Your task to perform on an android device: empty trash in google photos Image 0: 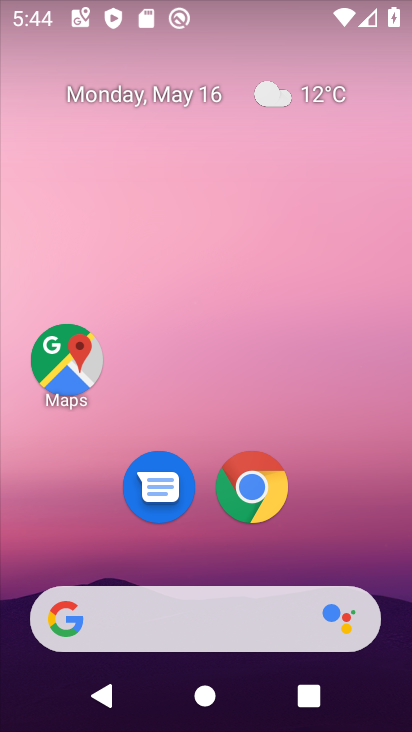
Step 0: drag from (357, 461) to (333, 98)
Your task to perform on an android device: empty trash in google photos Image 1: 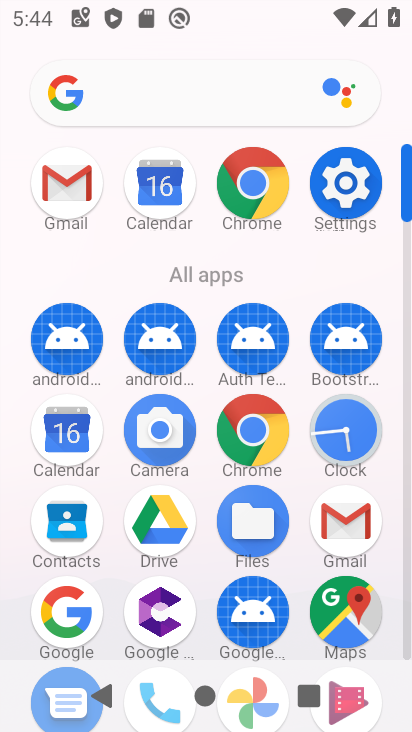
Step 1: drag from (210, 630) to (319, 250)
Your task to perform on an android device: empty trash in google photos Image 2: 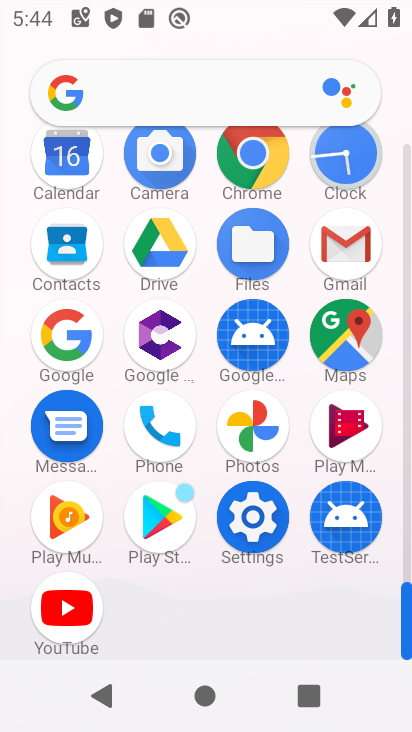
Step 2: click (265, 418)
Your task to perform on an android device: empty trash in google photos Image 3: 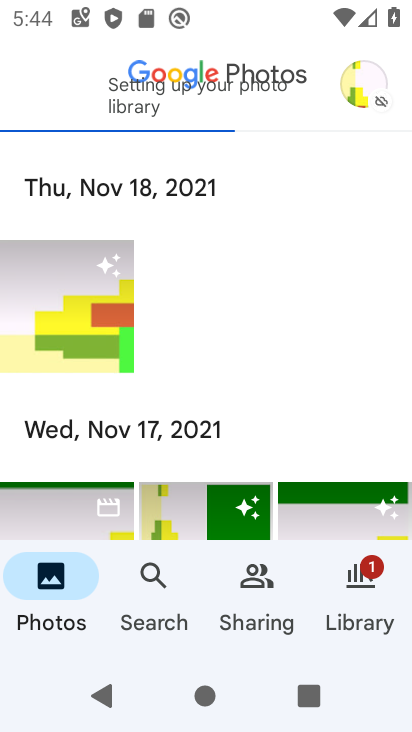
Step 3: click (354, 586)
Your task to perform on an android device: empty trash in google photos Image 4: 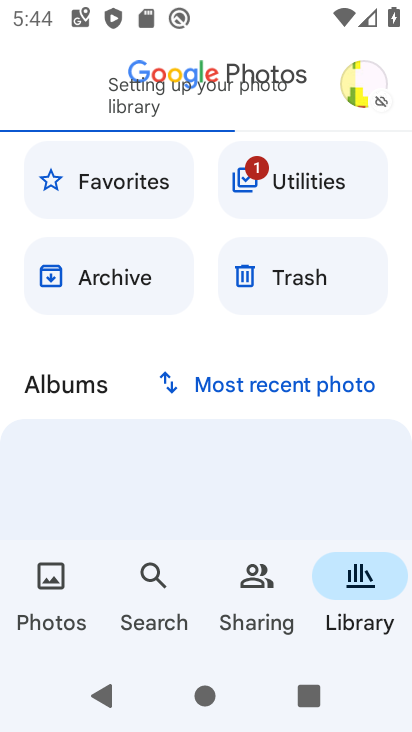
Step 4: click (281, 263)
Your task to perform on an android device: empty trash in google photos Image 5: 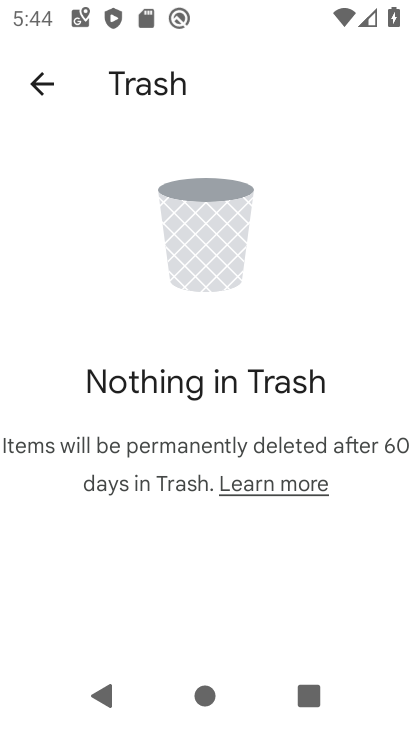
Step 5: task complete